Your task to perform on an android device: Search for pizza restaurants on Maps Image 0: 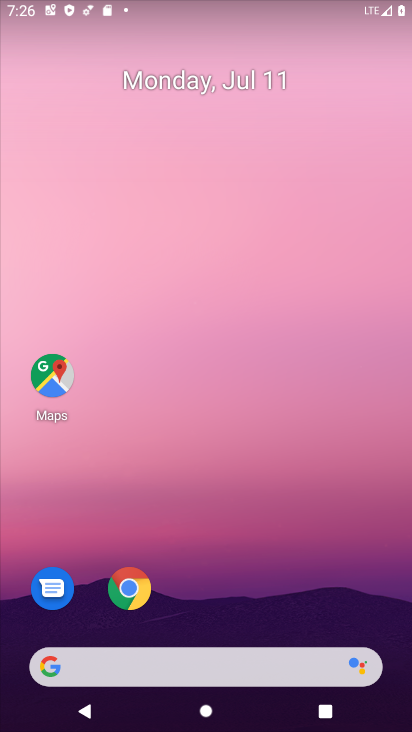
Step 0: drag from (379, 640) to (243, 87)
Your task to perform on an android device: Search for pizza restaurants on Maps Image 1: 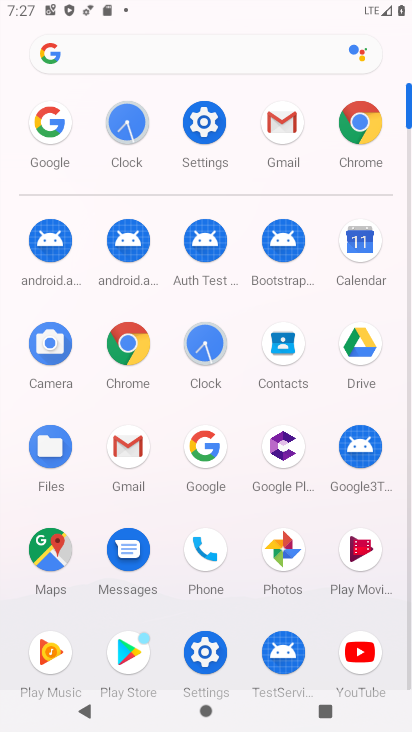
Step 1: click (39, 539)
Your task to perform on an android device: Search for pizza restaurants on Maps Image 2: 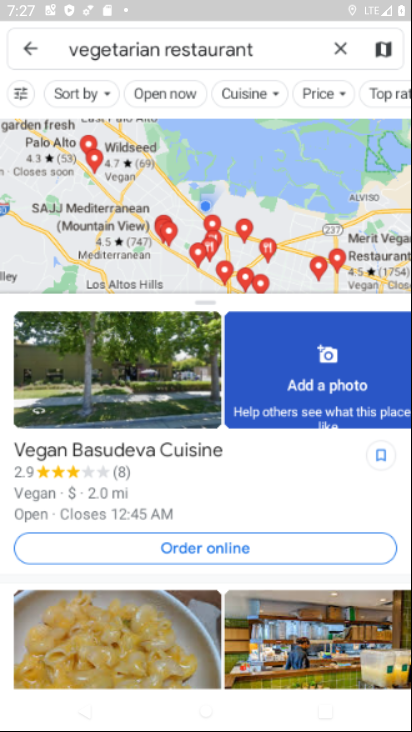
Step 2: press back button
Your task to perform on an android device: Search for pizza restaurants on Maps Image 3: 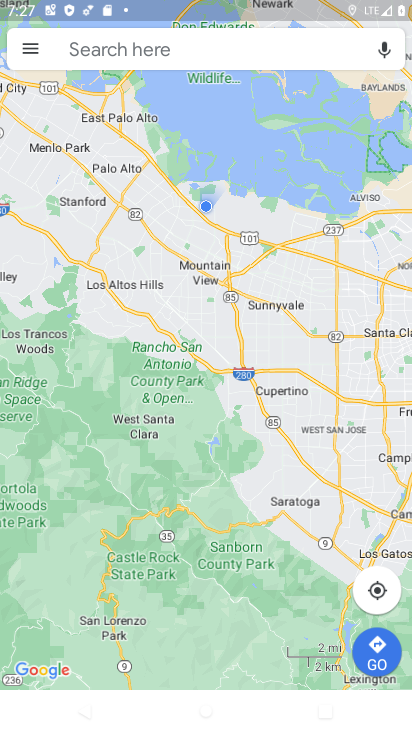
Step 3: click (172, 46)
Your task to perform on an android device: Search for pizza restaurants on Maps Image 4: 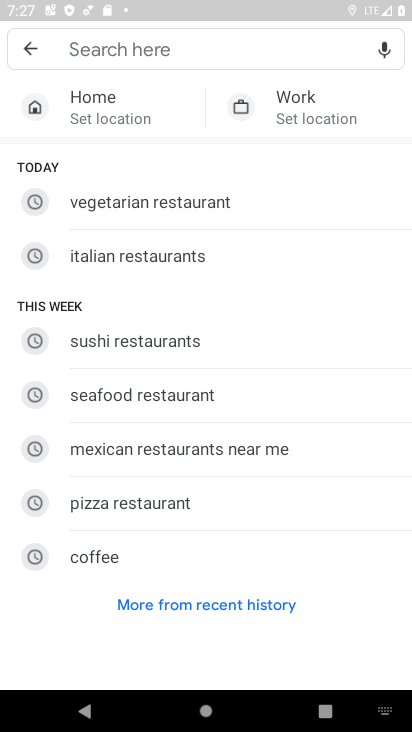
Step 4: click (96, 495)
Your task to perform on an android device: Search for pizza restaurants on Maps Image 5: 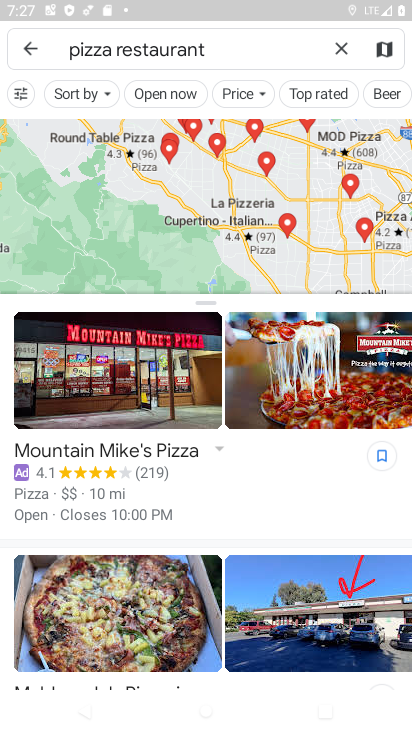
Step 5: task complete